Your task to perform on an android device: Show me the alarms in the clock app Image 0: 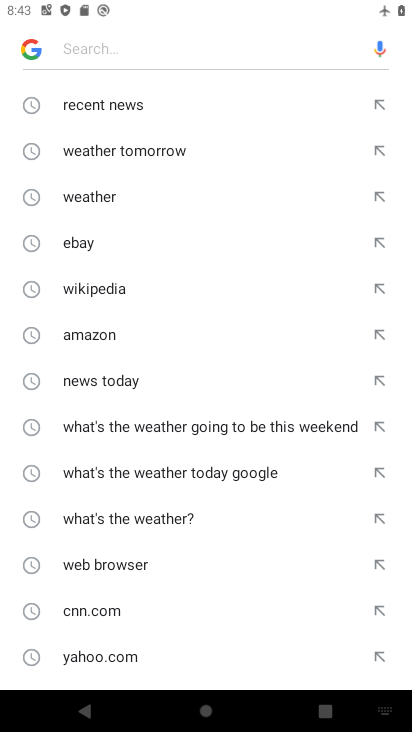
Step 0: press home button
Your task to perform on an android device: Show me the alarms in the clock app Image 1: 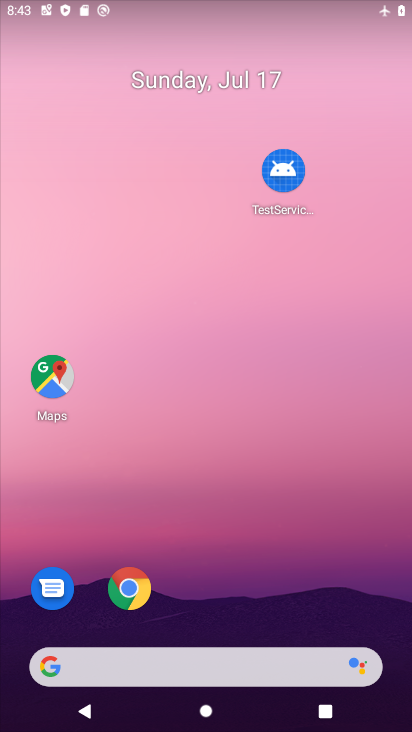
Step 1: drag from (241, 662) to (266, 209)
Your task to perform on an android device: Show me the alarms in the clock app Image 2: 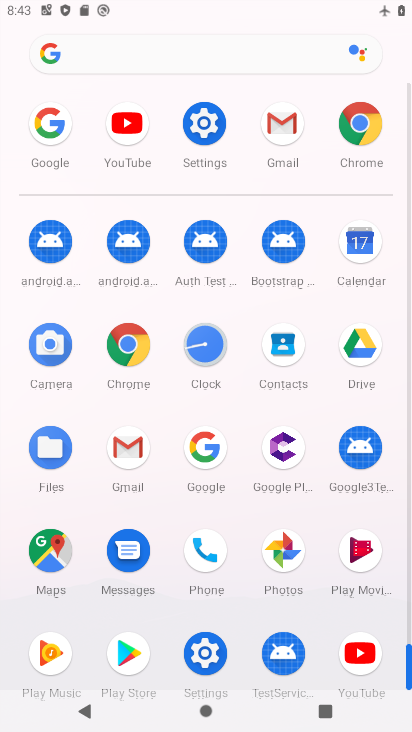
Step 2: click (216, 374)
Your task to perform on an android device: Show me the alarms in the clock app Image 3: 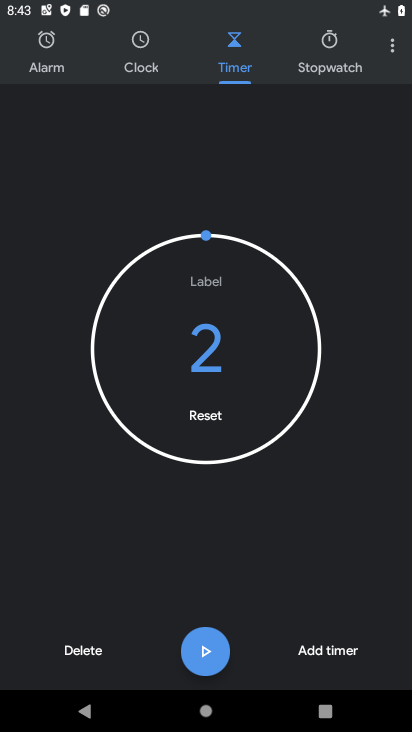
Step 3: click (59, 49)
Your task to perform on an android device: Show me the alarms in the clock app Image 4: 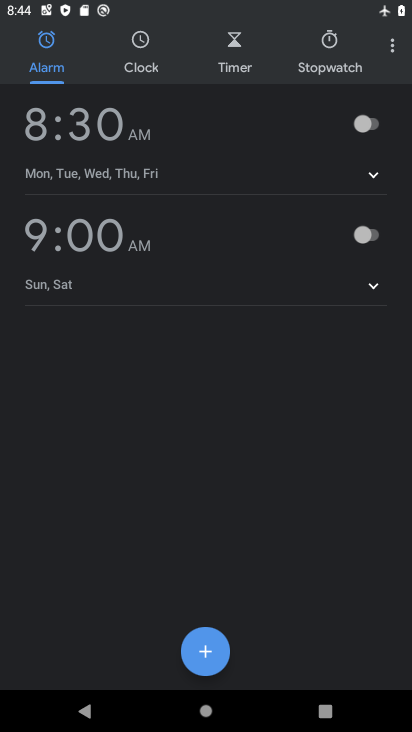
Step 4: task complete